Your task to perform on an android device: choose inbox layout in the gmail app Image 0: 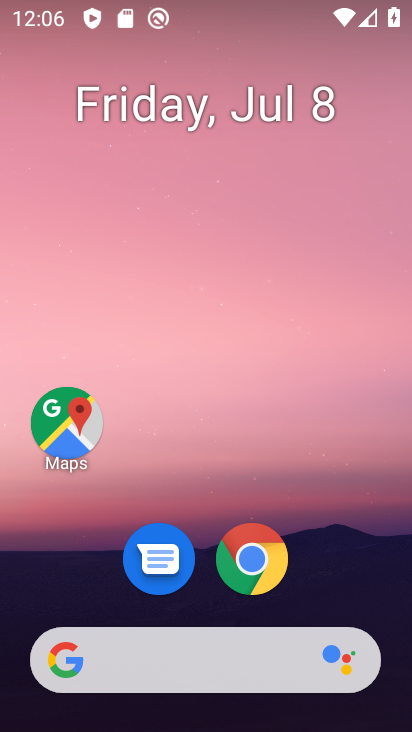
Step 0: drag from (203, 619) to (123, 5)
Your task to perform on an android device: choose inbox layout in the gmail app Image 1: 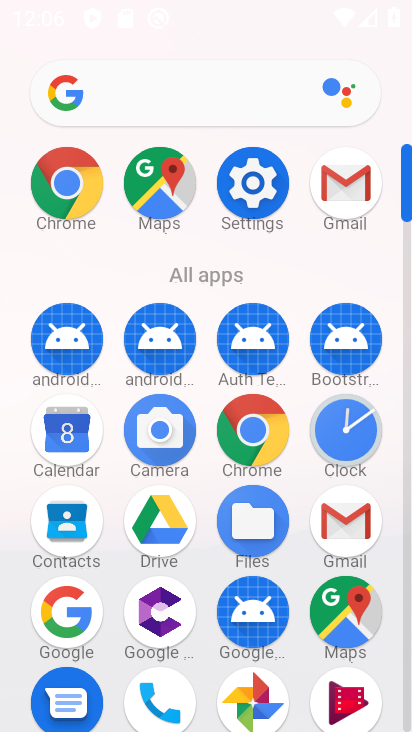
Step 1: click (347, 529)
Your task to perform on an android device: choose inbox layout in the gmail app Image 2: 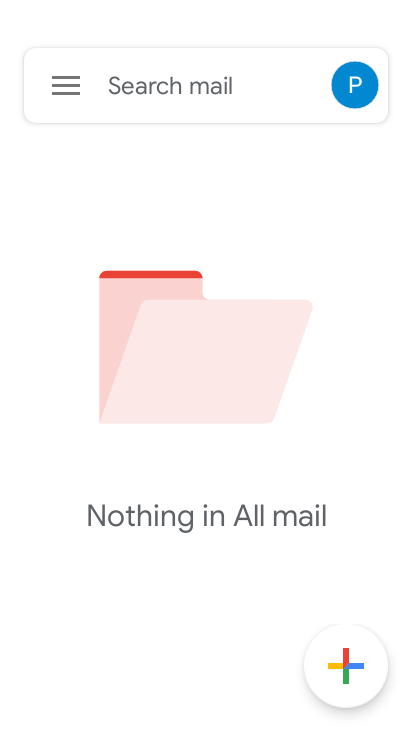
Step 2: click (69, 99)
Your task to perform on an android device: choose inbox layout in the gmail app Image 3: 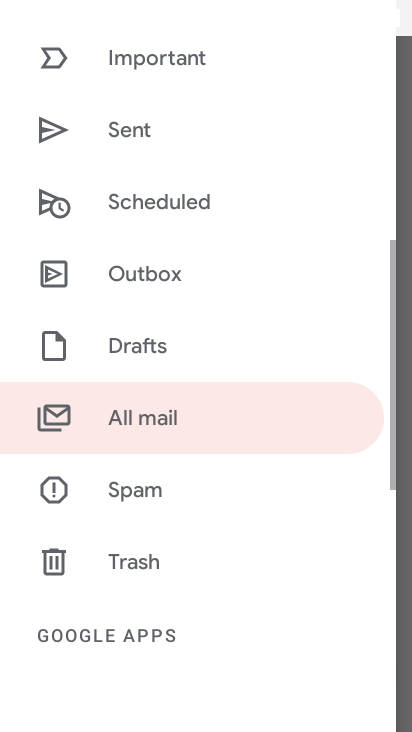
Step 3: drag from (91, 93) to (126, 462)
Your task to perform on an android device: choose inbox layout in the gmail app Image 4: 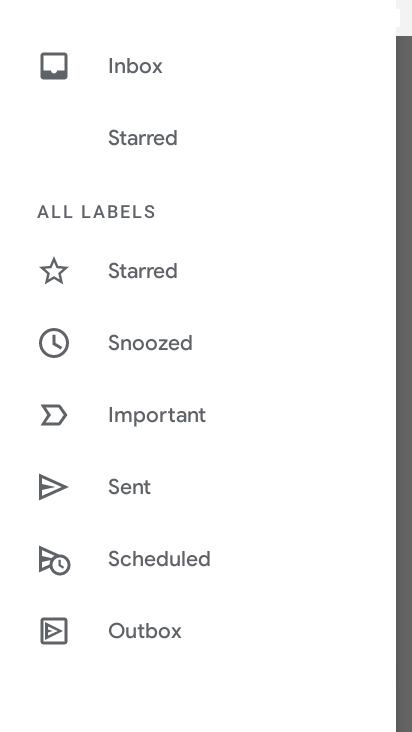
Step 4: click (127, 72)
Your task to perform on an android device: choose inbox layout in the gmail app Image 5: 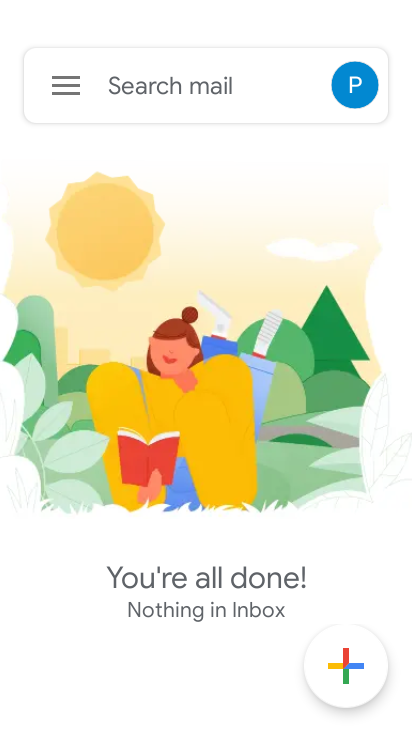
Step 5: task complete